Your task to perform on an android device: toggle show notifications on the lock screen Image 0: 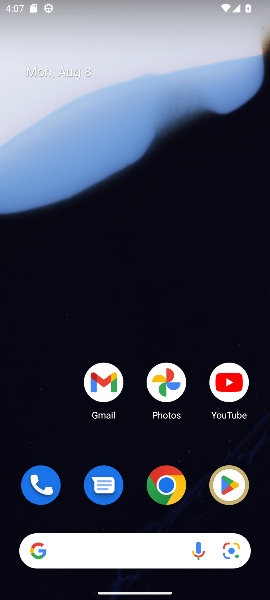
Step 0: drag from (152, 559) to (127, 72)
Your task to perform on an android device: toggle show notifications on the lock screen Image 1: 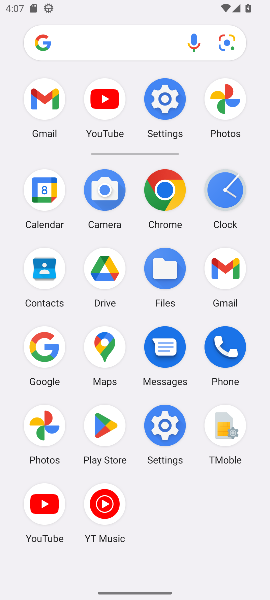
Step 1: click (150, 431)
Your task to perform on an android device: toggle show notifications on the lock screen Image 2: 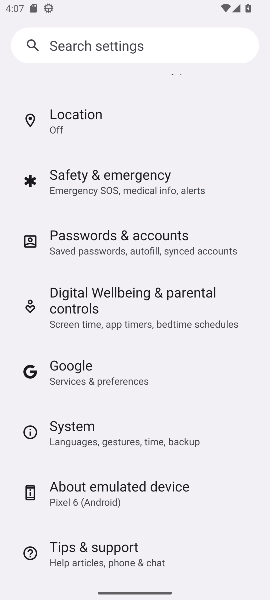
Step 2: drag from (114, 394) to (95, 149)
Your task to perform on an android device: toggle show notifications on the lock screen Image 3: 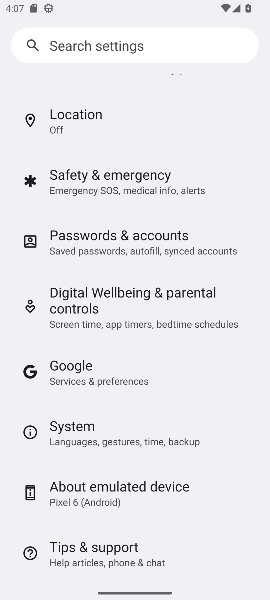
Step 3: drag from (154, 476) to (152, 332)
Your task to perform on an android device: toggle show notifications on the lock screen Image 4: 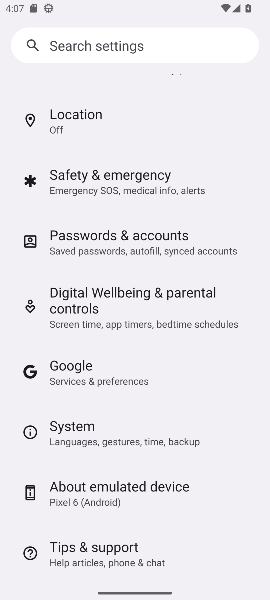
Step 4: drag from (143, 553) to (93, 283)
Your task to perform on an android device: toggle show notifications on the lock screen Image 5: 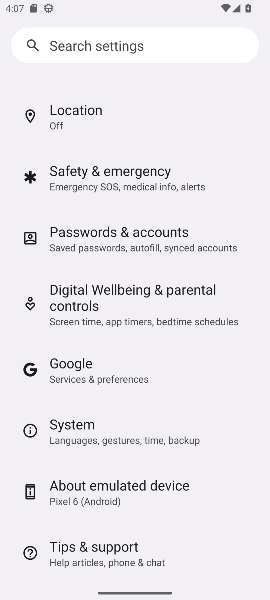
Step 5: drag from (104, 430) to (108, 188)
Your task to perform on an android device: toggle show notifications on the lock screen Image 6: 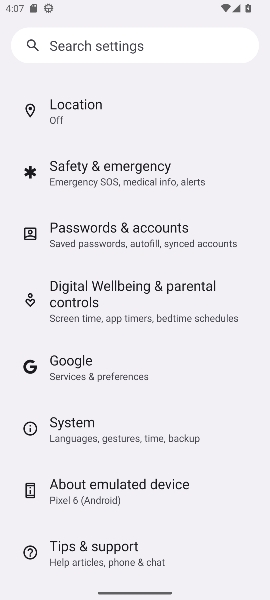
Step 6: drag from (108, 393) to (122, 240)
Your task to perform on an android device: toggle show notifications on the lock screen Image 7: 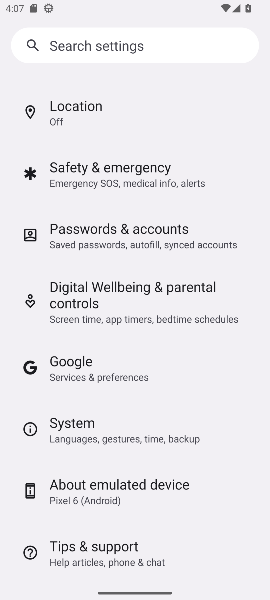
Step 7: drag from (151, 400) to (133, 244)
Your task to perform on an android device: toggle show notifications on the lock screen Image 8: 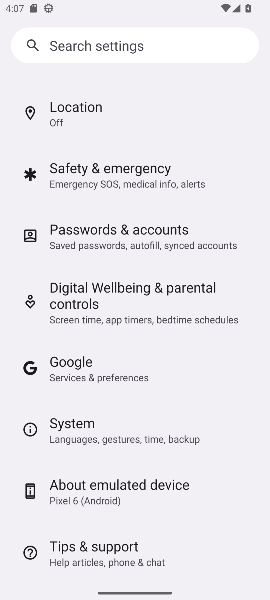
Step 8: drag from (131, 403) to (113, 297)
Your task to perform on an android device: toggle show notifications on the lock screen Image 9: 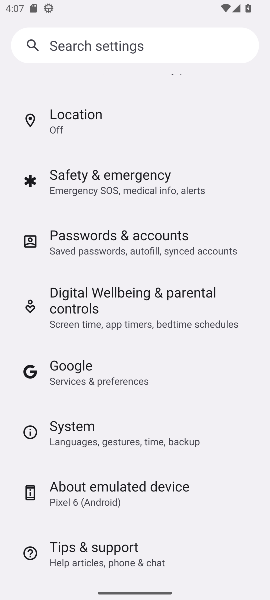
Step 9: drag from (112, 453) to (104, 267)
Your task to perform on an android device: toggle show notifications on the lock screen Image 10: 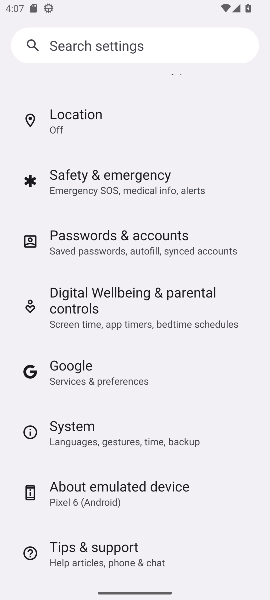
Step 10: drag from (84, 158) to (100, 456)
Your task to perform on an android device: toggle show notifications on the lock screen Image 11: 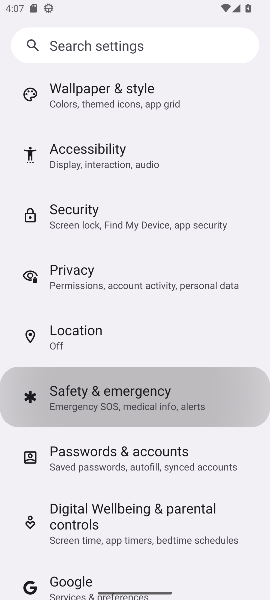
Step 11: drag from (103, 221) to (127, 505)
Your task to perform on an android device: toggle show notifications on the lock screen Image 12: 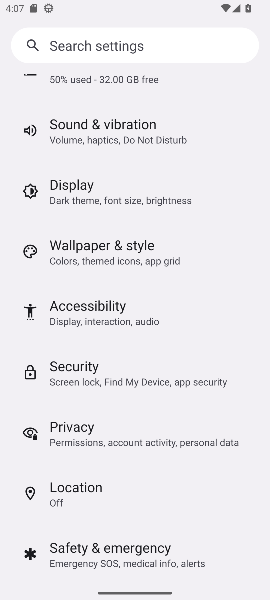
Step 12: click (110, 452)
Your task to perform on an android device: toggle show notifications on the lock screen Image 13: 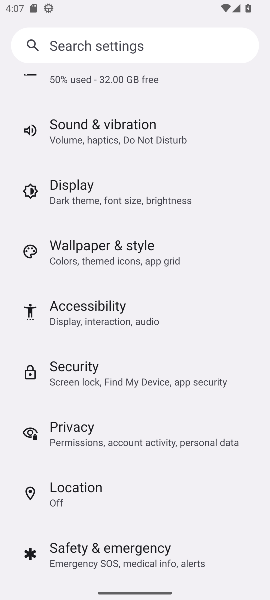
Step 13: drag from (94, 256) to (114, 500)
Your task to perform on an android device: toggle show notifications on the lock screen Image 14: 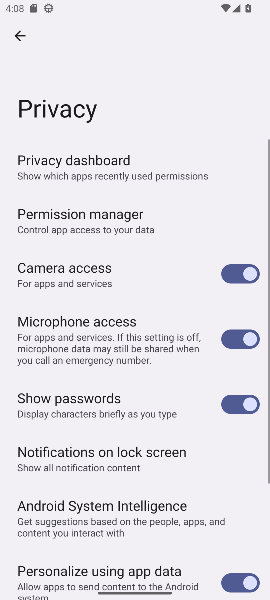
Step 14: drag from (114, 235) to (149, 441)
Your task to perform on an android device: toggle show notifications on the lock screen Image 15: 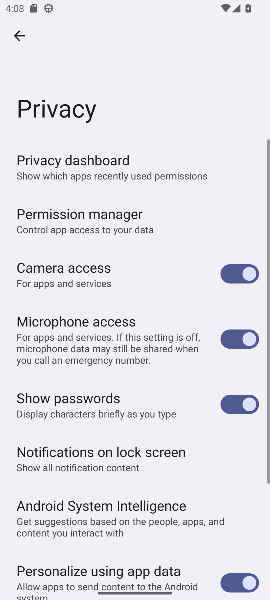
Step 15: click (87, 483)
Your task to perform on an android device: toggle show notifications on the lock screen Image 16: 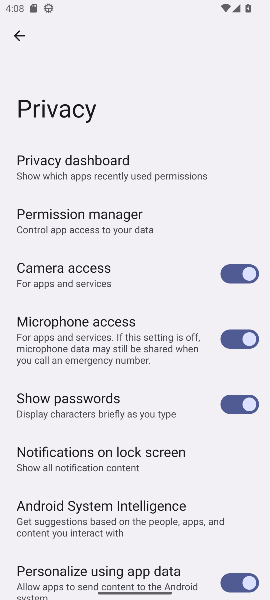
Step 16: click (19, 32)
Your task to perform on an android device: toggle show notifications on the lock screen Image 17: 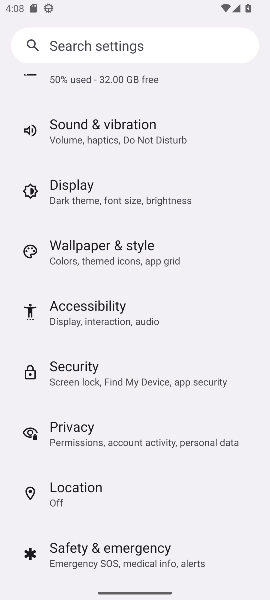
Step 17: drag from (79, 115) to (76, 476)
Your task to perform on an android device: toggle show notifications on the lock screen Image 18: 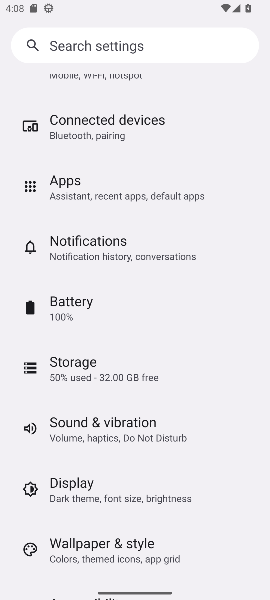
Step 18: drag from (81, 151) to (104, 446)
Your task to perform on an android device: toggle show notifications on the lock screen Image 19: 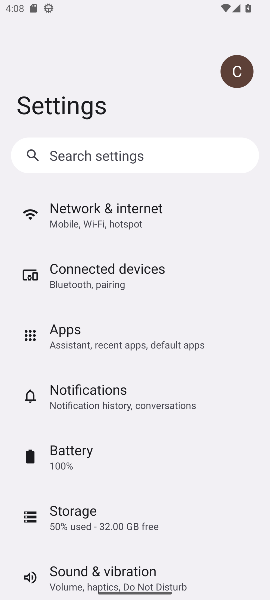
Step 19: click (74, 400)
Your task to perform on an android device: toggle show notifications on the lock screen Image 20: 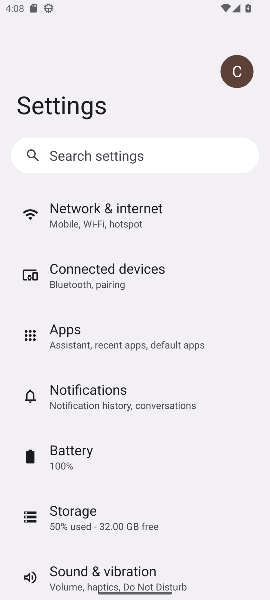
Step 20: click (74, 400)
Your task to perform on an android device: toggle show notifications on the lock screen Image 21: 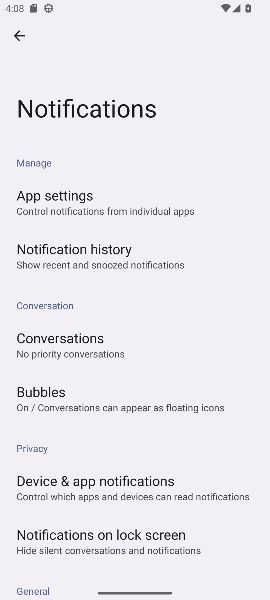
Step 21: click (107, 539)
Your task to perform on an android device: toggle show notifications on the lock screen Image 22: 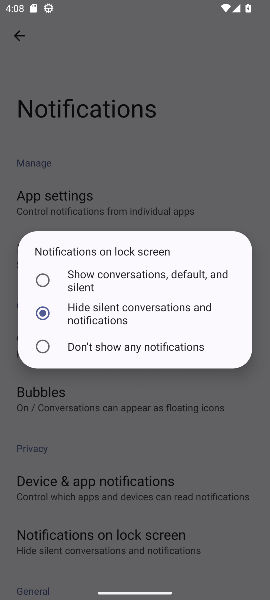
Step 22: click (44, 277)
Your task to perform on an android device: toggle show notifications on the lock screen Image 23: 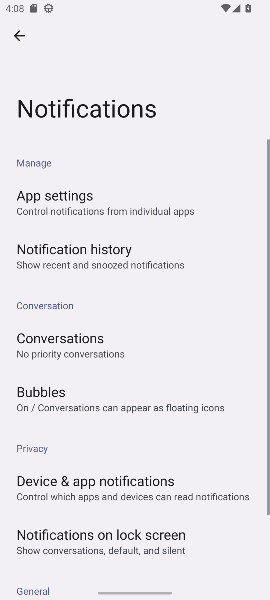
Step 23: task complete